Your task to perform on an android device: change alarm snooze length Image 0: 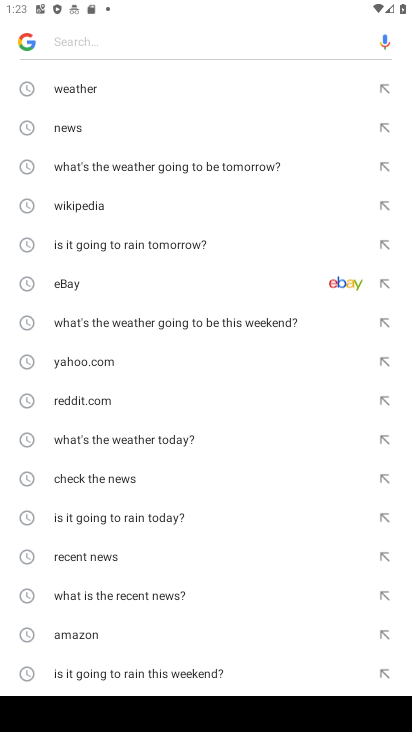
Step 0: press home button
Your task to perform on an android device: change alarm snooze length Image 1: 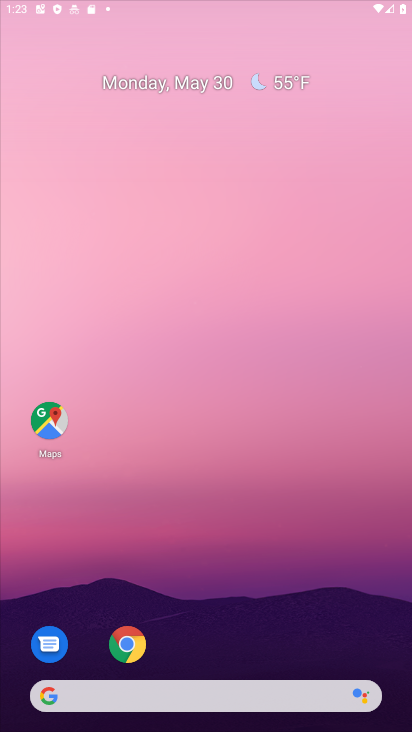
Step 1: drag from (295, 605) to (285, 229)
Your task to perform on an android device: change alarm snooze length Image 2: 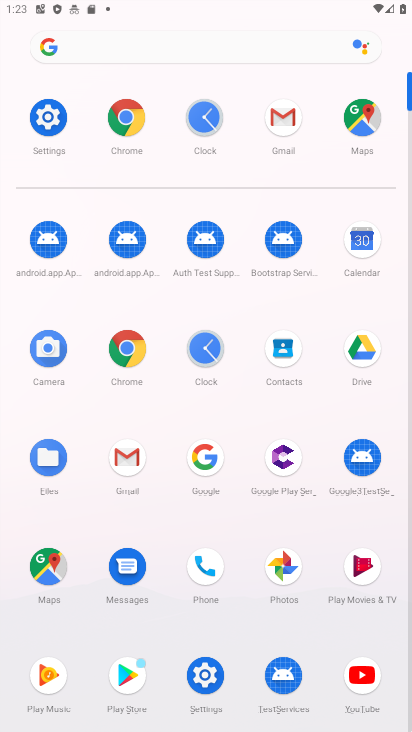
Step 2: click (215, 149)
Your task to perform on an android device: change alarm snooze length Image 3: 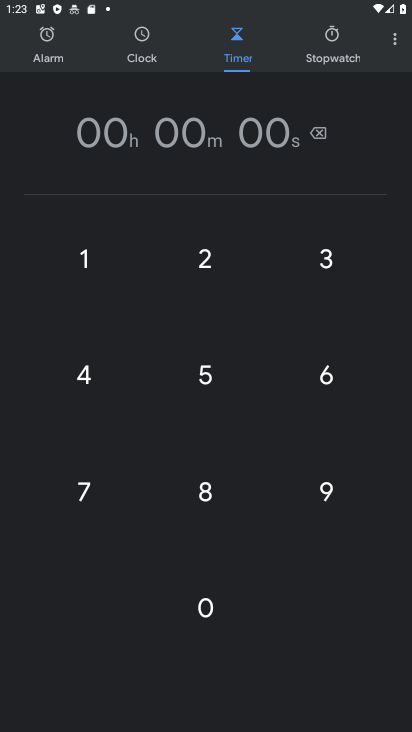
Step 3: click (385, 45)
Your task to perform on an android device: change alarm snooze length Image 4: 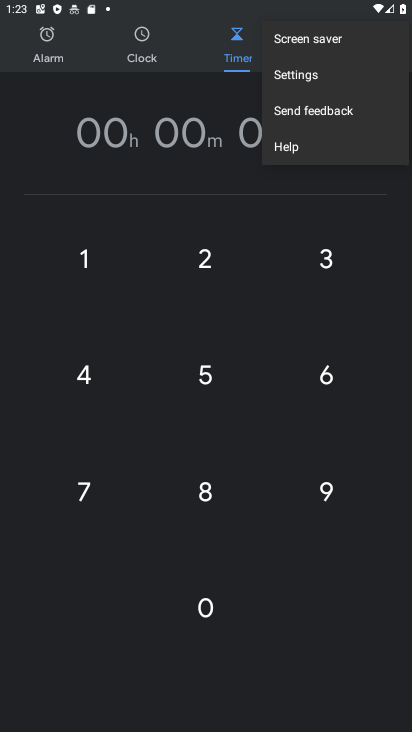
Step 4: click (348, 66)
Your task to perform on an android device: change alarm snooze length Image 5: 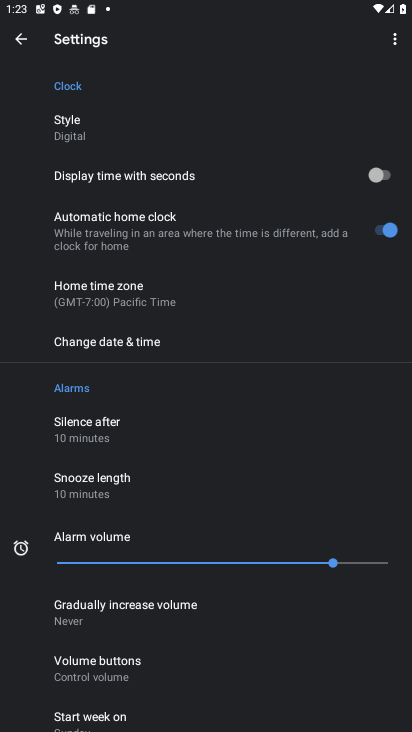
Step 5: click (184, 470)
Your task to perform on an android device: change alarm snooze length Image 6: 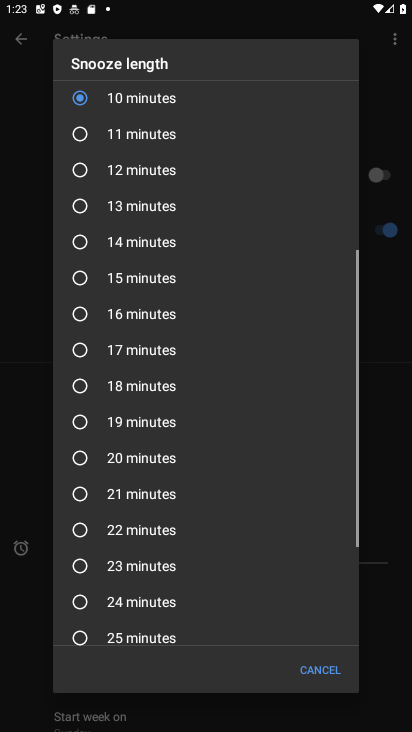
Step 6: click (230, 266)
Your task to perform on an android device: change alarm snooze length Image 7: 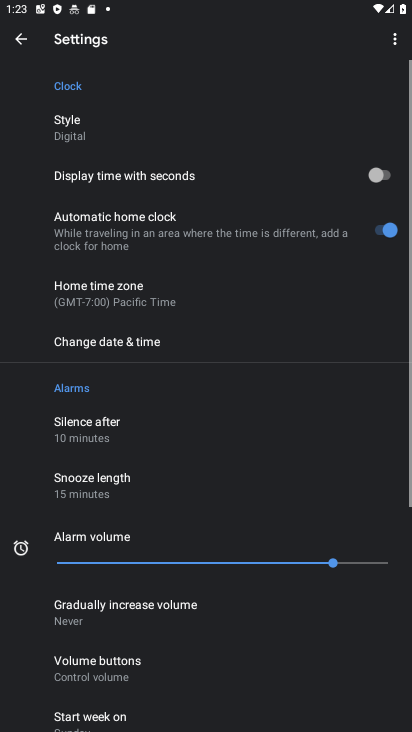
Step 7: task complete